Your task to perform on an android device: Open the map Image 0: 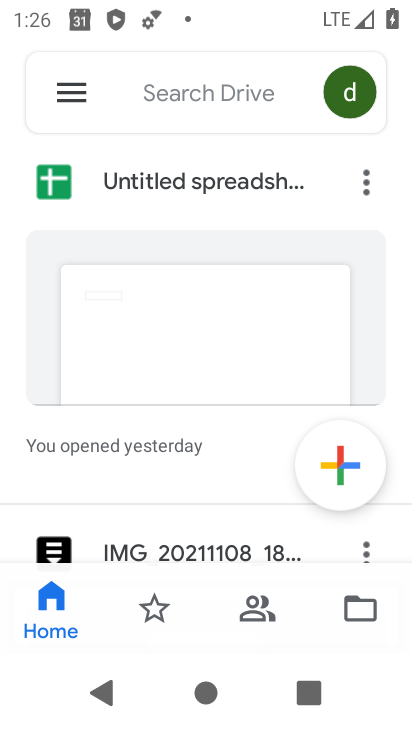
Step 0: press back button
Your task to perform on an android device: Open the map Image 1: 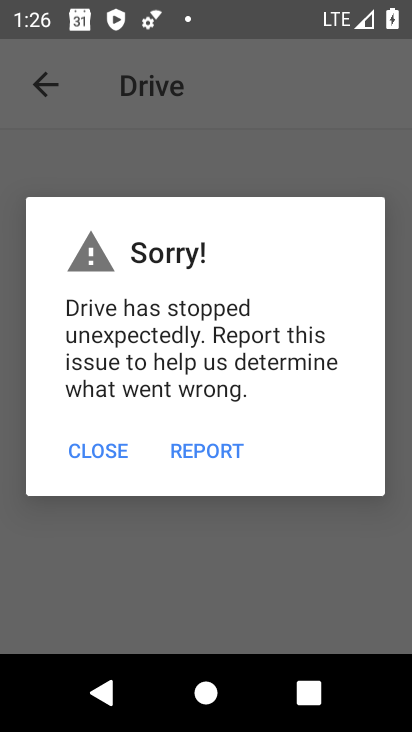
Step 1: press back button
Your task to perform on an android device: Open the map Image 2: 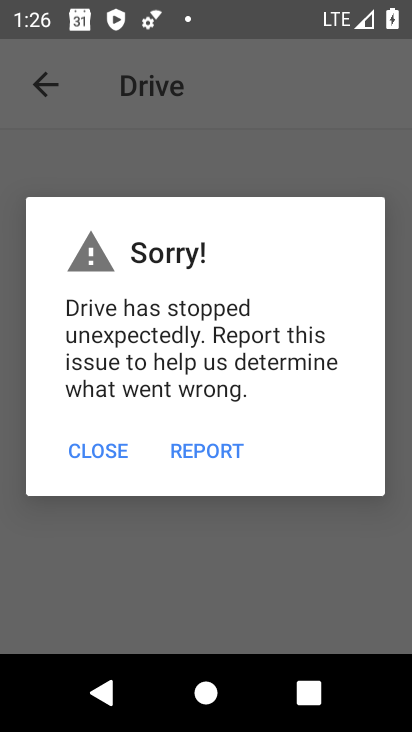
Step 2: press home button
Your task to perform on an android device: Open the map Image 3: 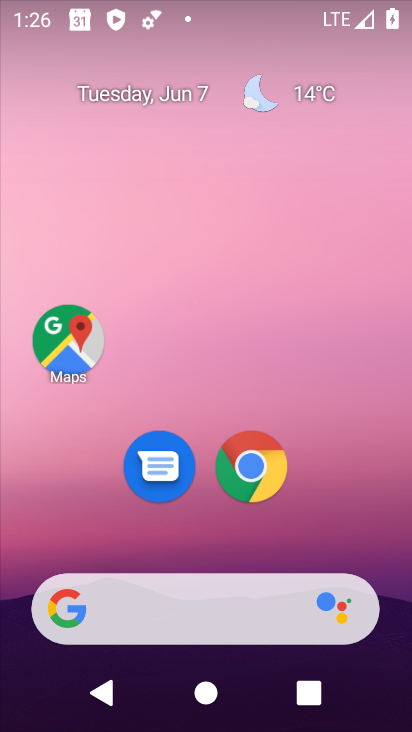
Step 3: click (64, 320)
Your task to perform on an android device: Open the map Image 4: 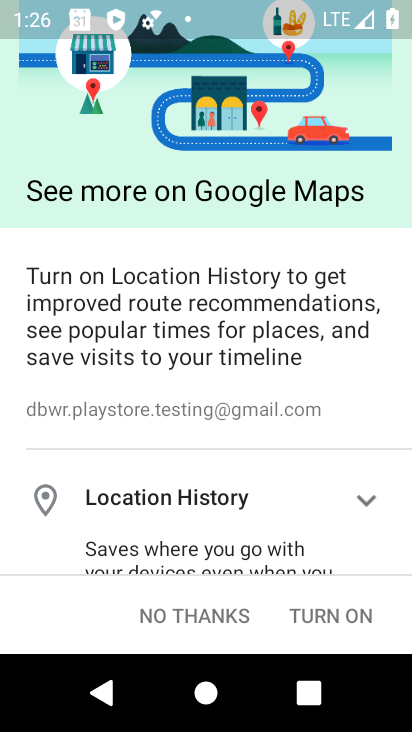
Step 4: click (158, 609)
Your task to perform on an android device: Open the map Image 5: 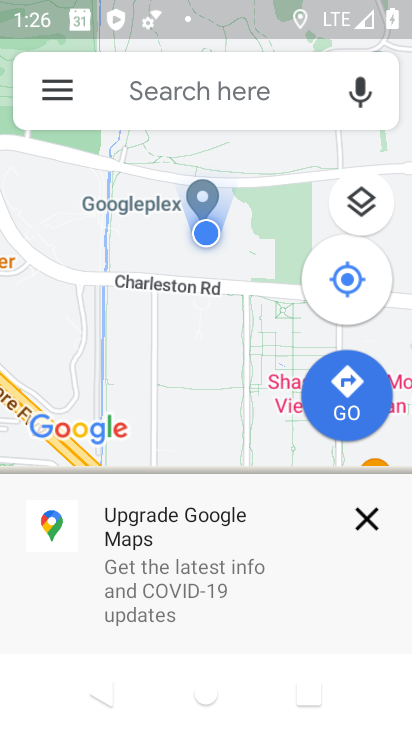
Step 5: task complete